Your task to perform on an android device: check android version Image 0: 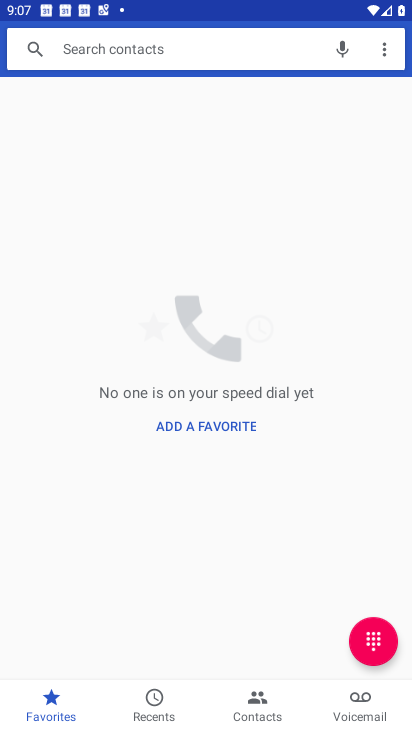
Step 0: press home button
Your task to perform on an android device: check android version Image 1: 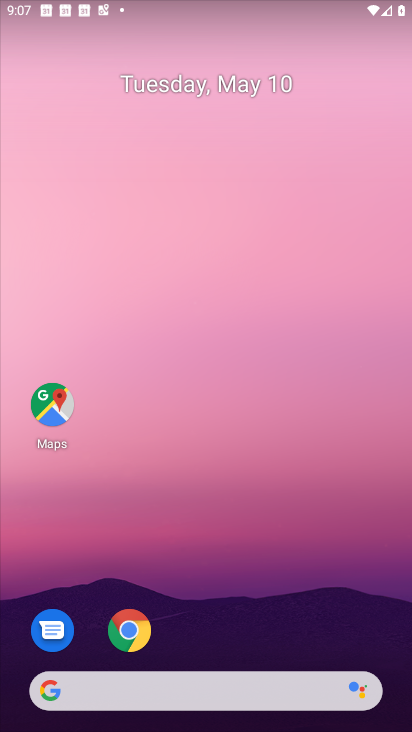
Step 1: drag from (115, 720) to (183, 11)
Your task to perform on an android device: check android version Image 2: 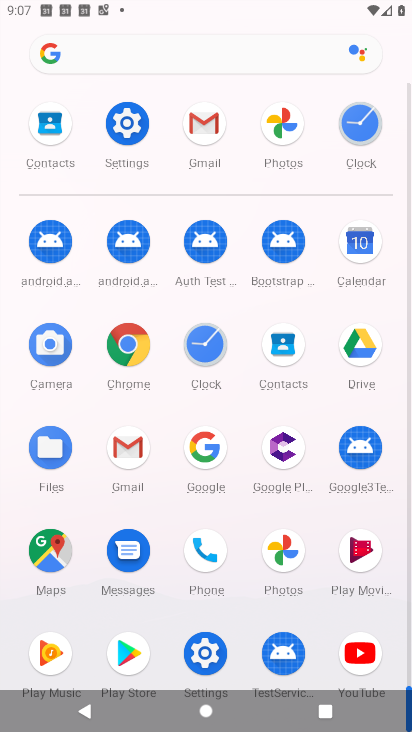
Step 2: click (206, 639)
Your task to perform on an android device: check android version Image 3: 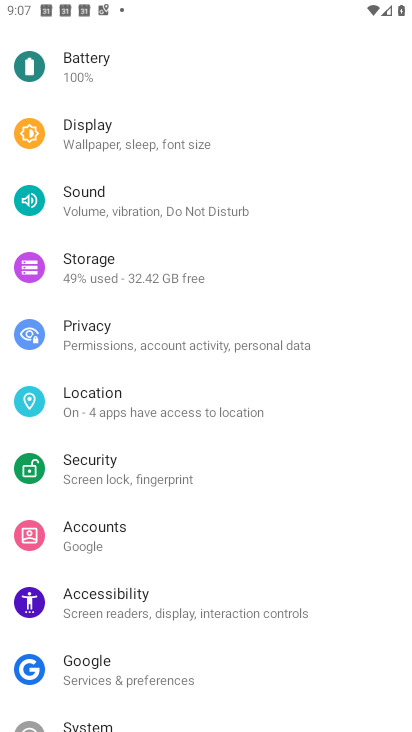
Step 3: drag from (228, 627) to (215, 31)
Your task to perform on an android device: check android version Image 4: 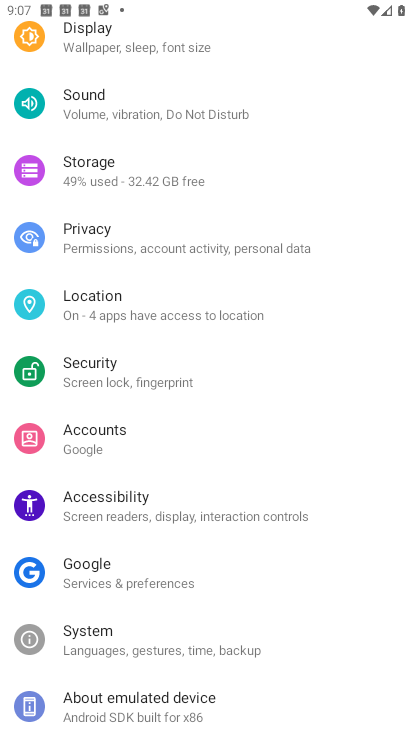
Step 4: click (208, 699)
Your task to perform on an android device: check android version Image 5: 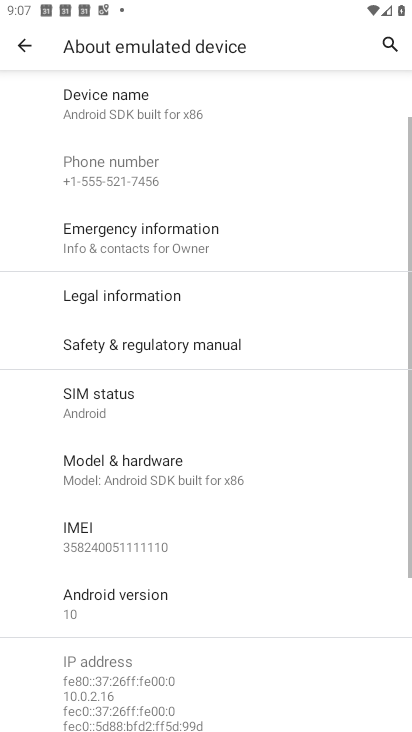
Step 5: task complete